Your task to perform on an android device: Check the news Image 0: 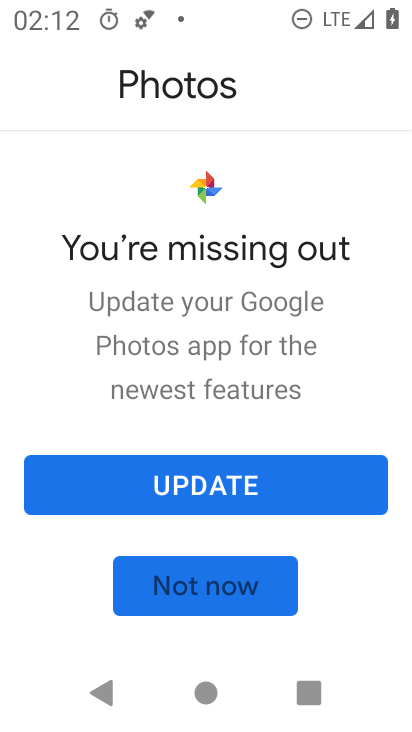
Step 0: press home button
Your task to perform on an android device: Check the news Image 1: 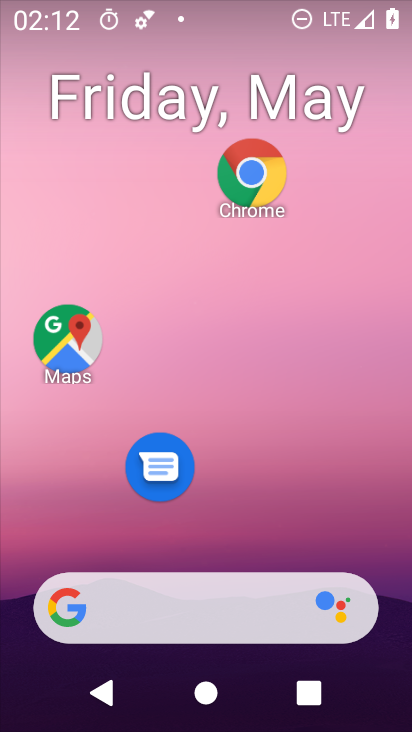
Step 1: click (172, 599)
Your task to perform on an android device: Check the news Image 2: 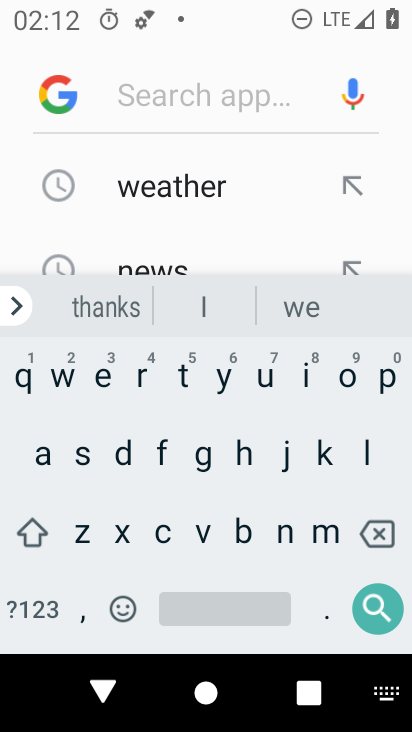
Step 2: click (213, 264)
Your task to perform on an android device: Check the news Image 3: 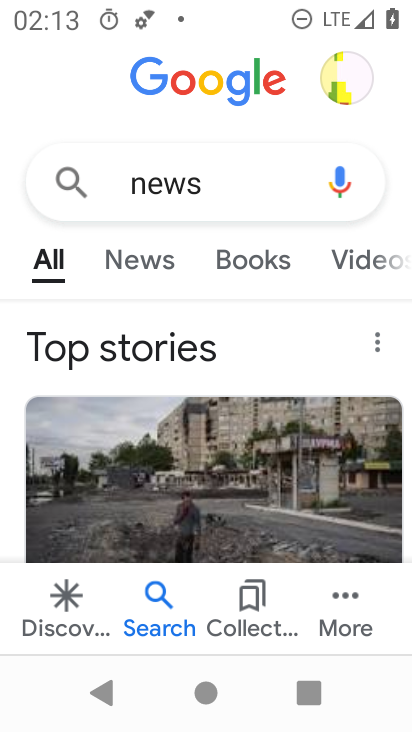
Step 3: task complete